Your task to perform on an android device: Go to privacy settings Image 0: 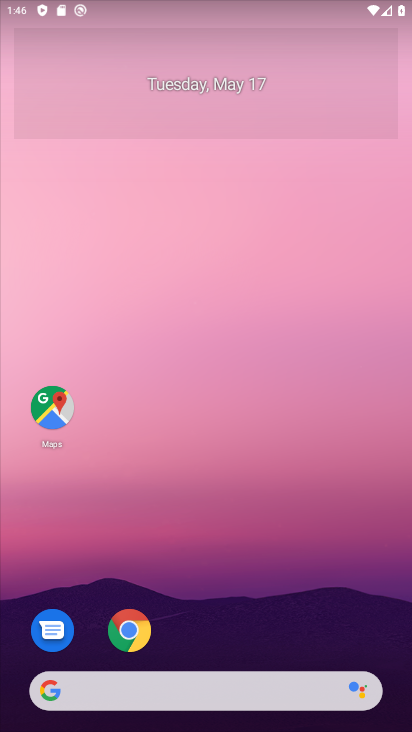
Step 0: press home button
Your task to perform on an android device: Go to privacy settings Image 1: 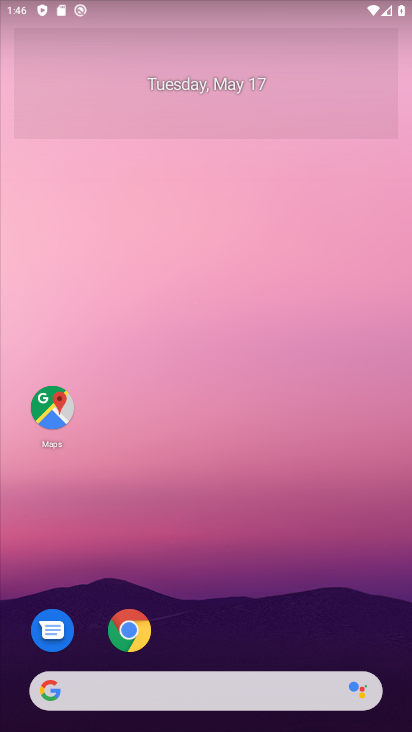
Step 1: drag from (372, 624) to (287, 145)
Your task to perform on an android device: Go to privacy settings Image 2: 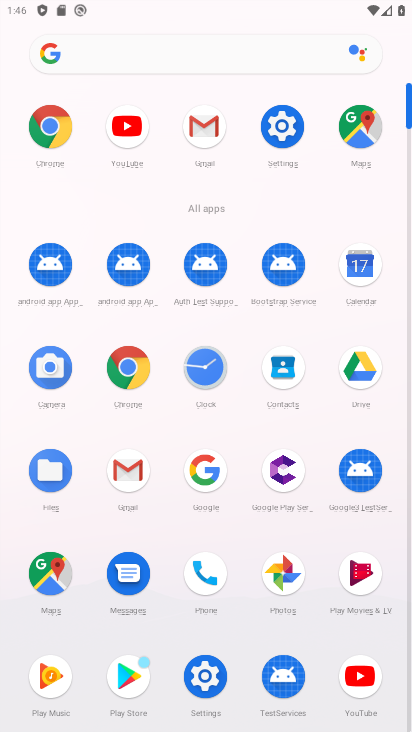
Step 2: click (206, 681)
Your task to perform on an android device: Go to privacy settings Image 3: 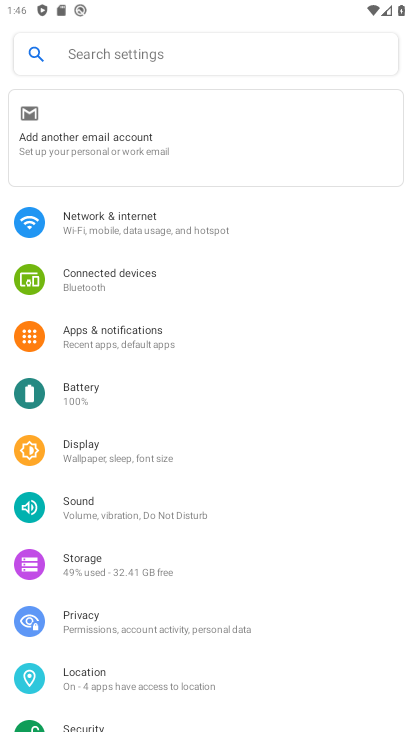
Step 3: click (180, 639)
Your task to perform on an android device: Go to privacy settings Image 4: 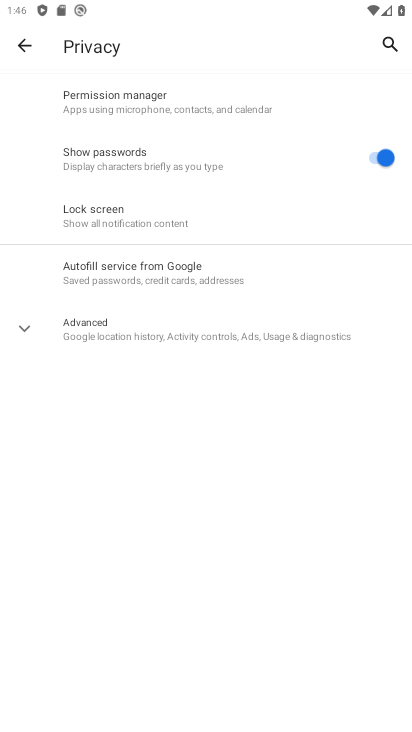
Step 4: task complete